Your task to perform on an android device: Open eBay Image 0: 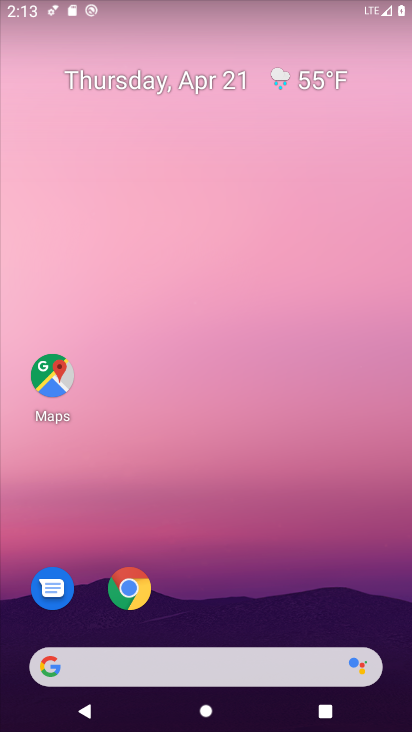
Step 0: click (117, 582)
Your task to perform on an android device: Open eBay Image 1: 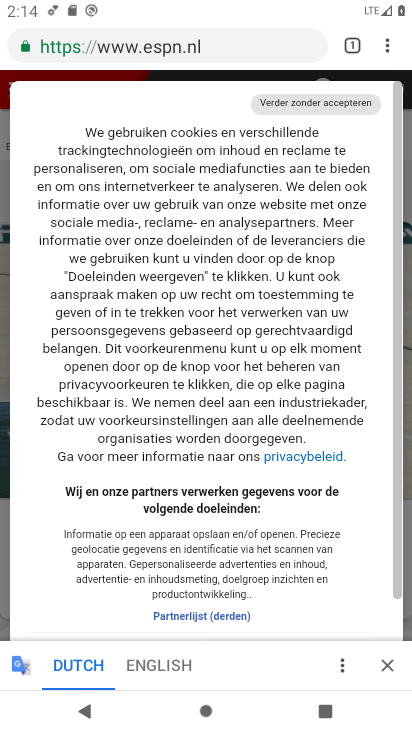
Step 1: click (182, 52)
Your task to perform on an android device: Open eBay Image 2: 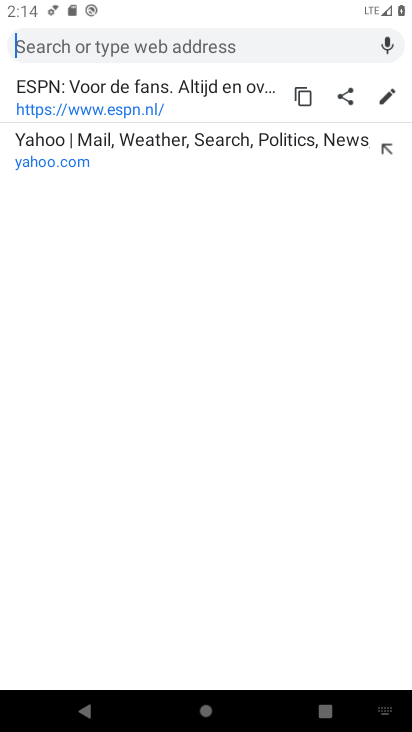
Step 2: type "ebay"
Your task to perform on an android device: Open eBay Image 3: 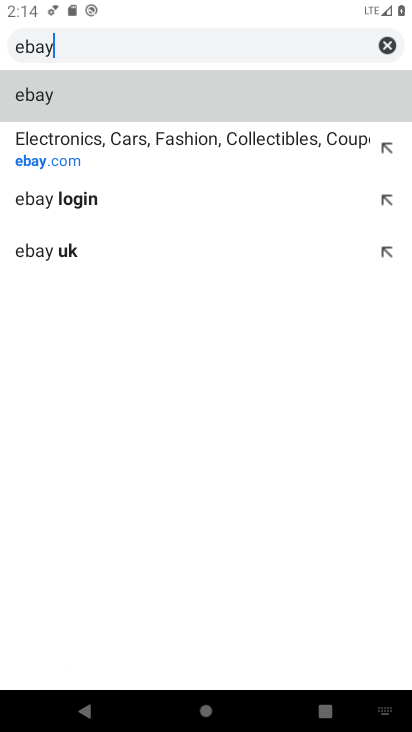
Step 3: click (109, 80)
Your task to perform on an android device: Open eBay Image 4: 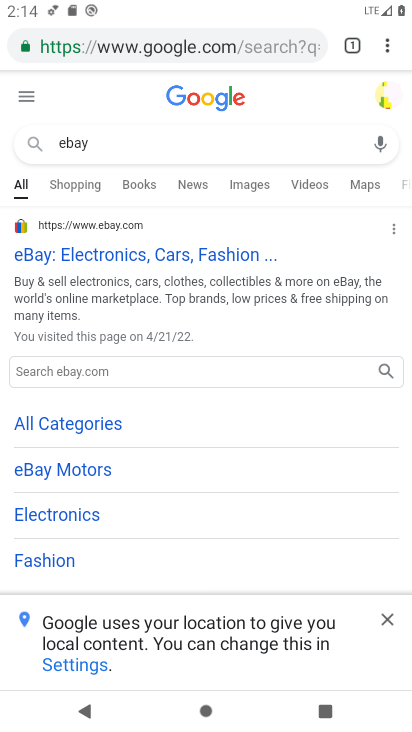
Step 4: click (142, 257)
Your task to perform on an android device: Open eBay Image 5: 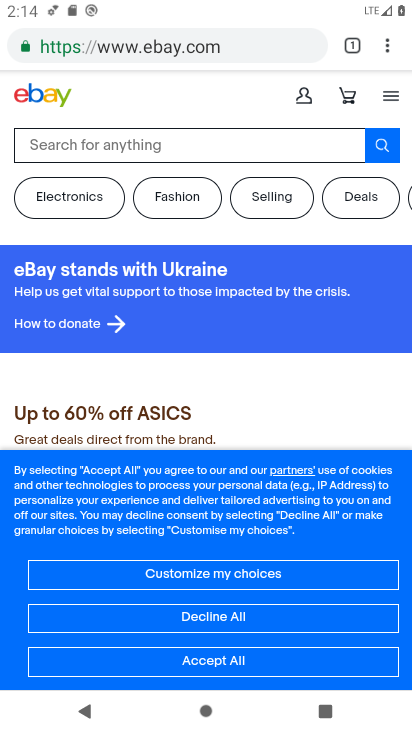
Step 5: task complete